Your task to perform on an android device: Do I have any events this weekend? Image 0: 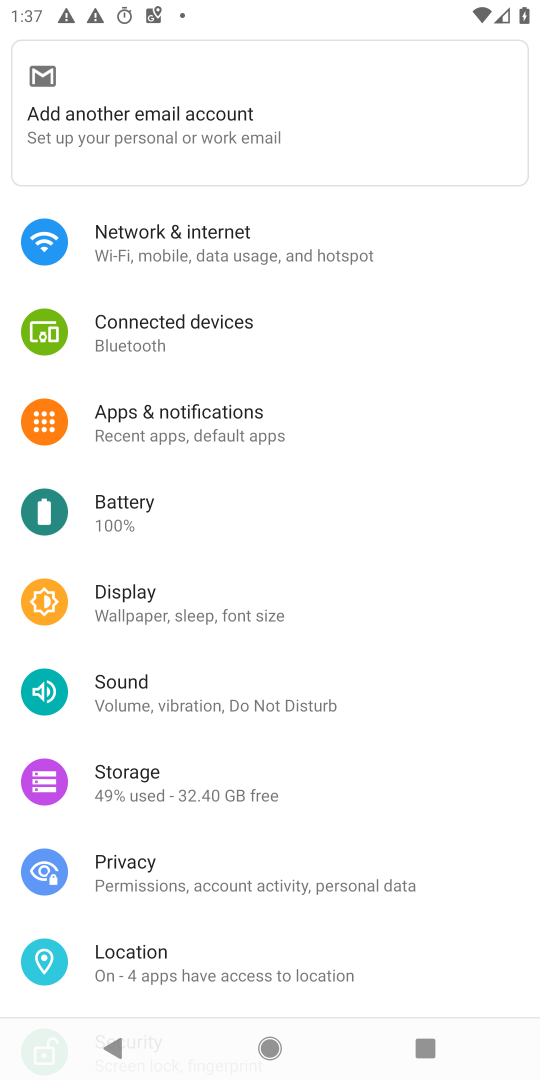
Step 0: press home button
Your task to perform on an android device: Do I have any events this weekend? Image 1: 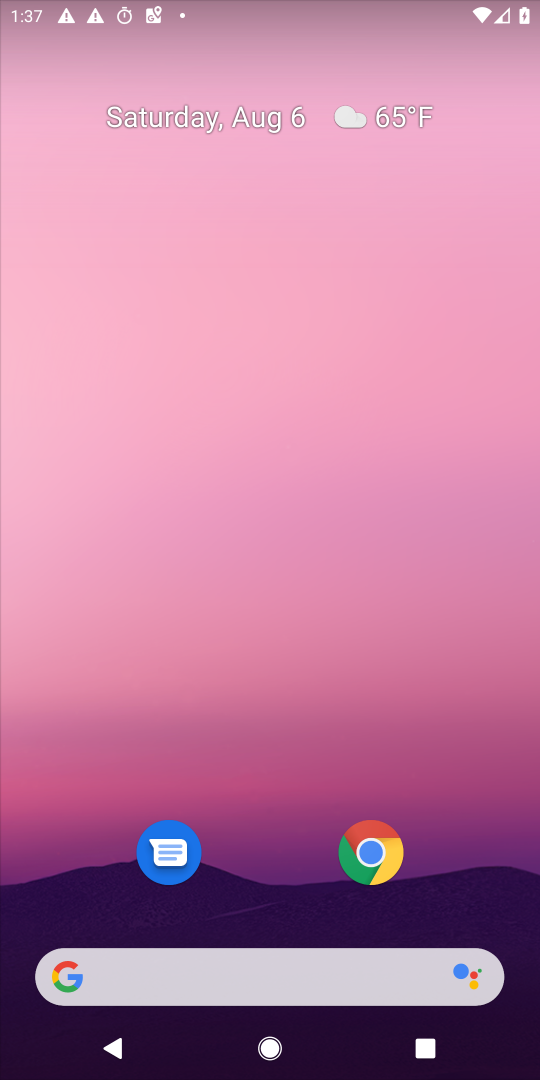
Step 1: drag from (334, 1006) to (290, 281)
Your task to perform on an android device: Do I have any events this weekend? Image 2: 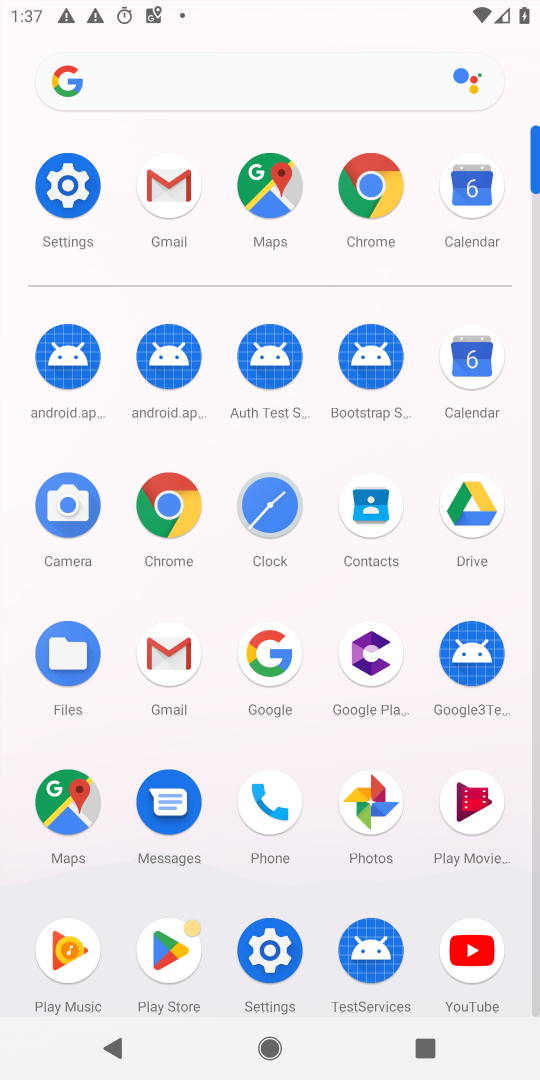
Step 2: click (486, 358)
Your task to perform on an android device: Do I have any events this weekend? Image 3: 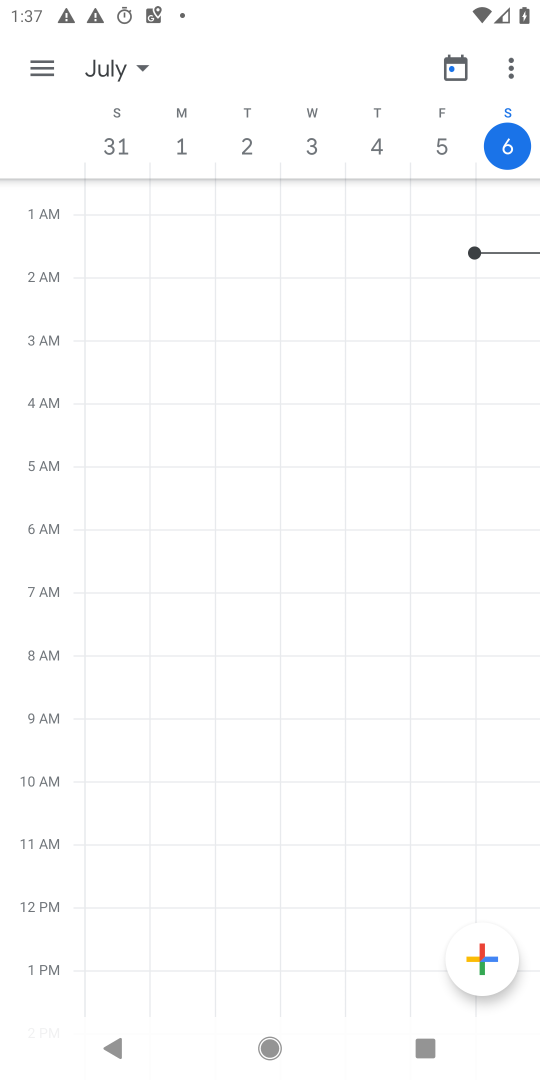
Step 3: click (34, 70)
Your task to perform on an android device: Do I have any events this weekend? Image 4: 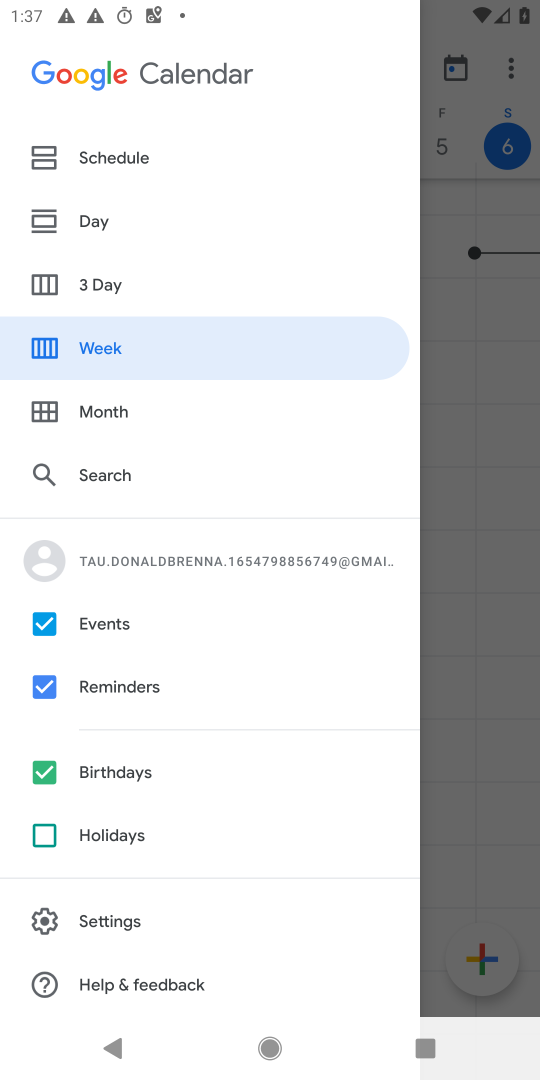
Step 4: click (116, 413)
Your task to perform on an android device: Do I have any events this weekend? Image 5: 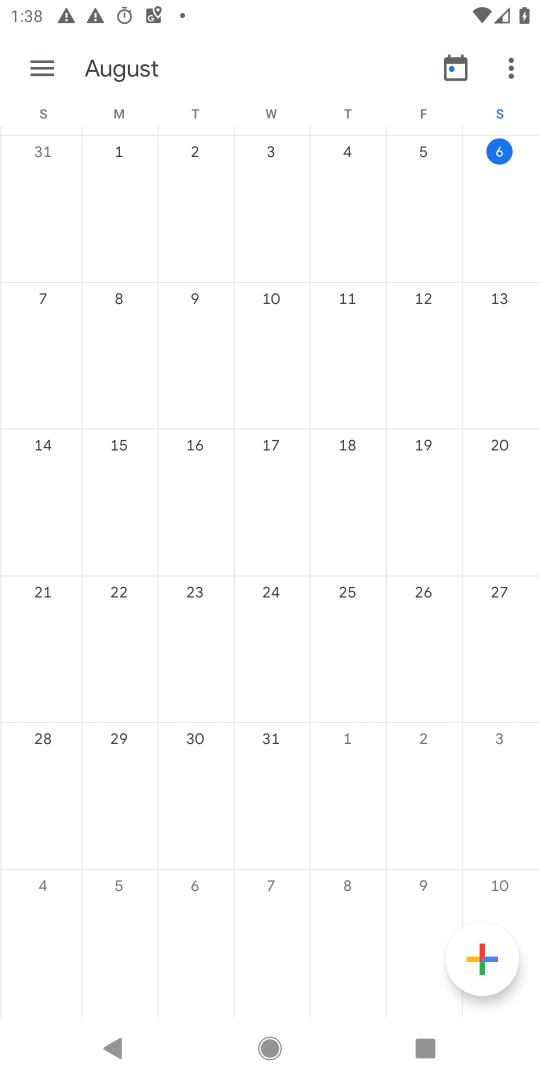
Step 5: click (89, 313)
Your task to perform on an android device: Do I have any events this weekend? Image 6: 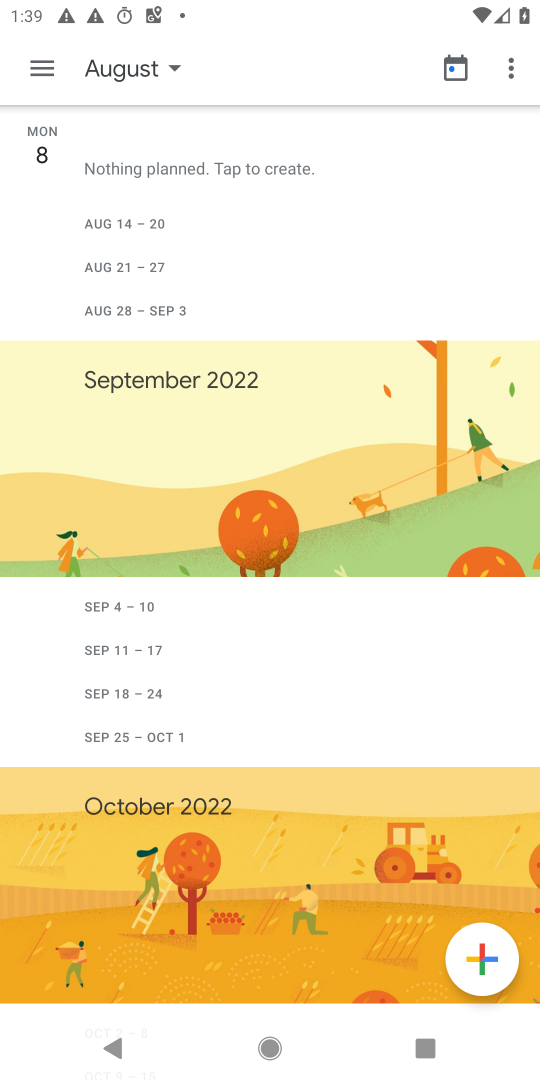
Step 6: task complete